Your task to perform on an android device: check storage Image 0: 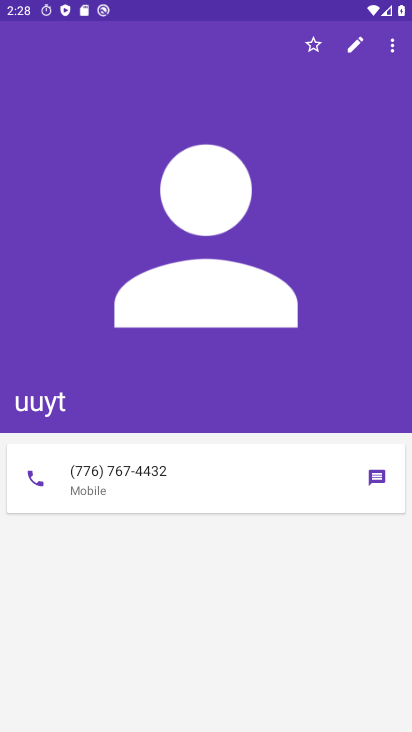
Step 0: press home button
Your task to perform on an android device: check storage Image 1: 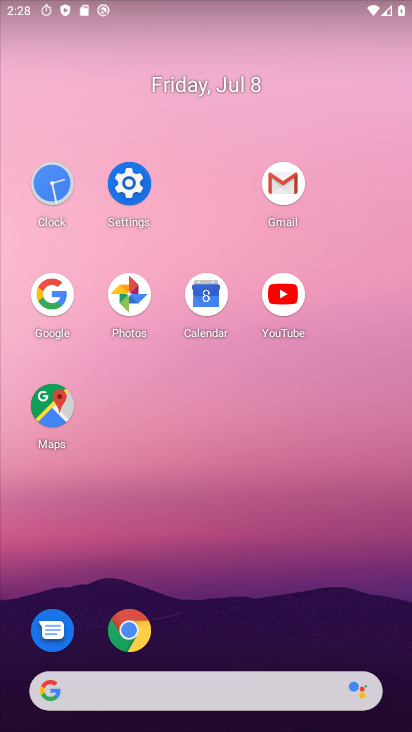
Step 1: click (128, 178)
Your task to perform on an android device: check storage Image 2: 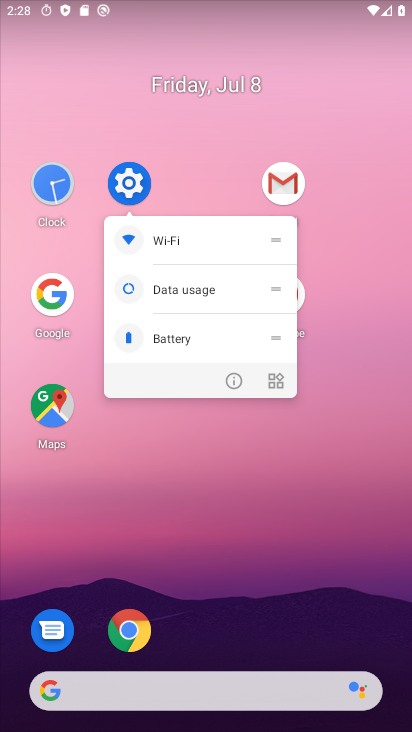
Step 2: click (128, 178)
Your task to perform on an android device: check storage Image 3: 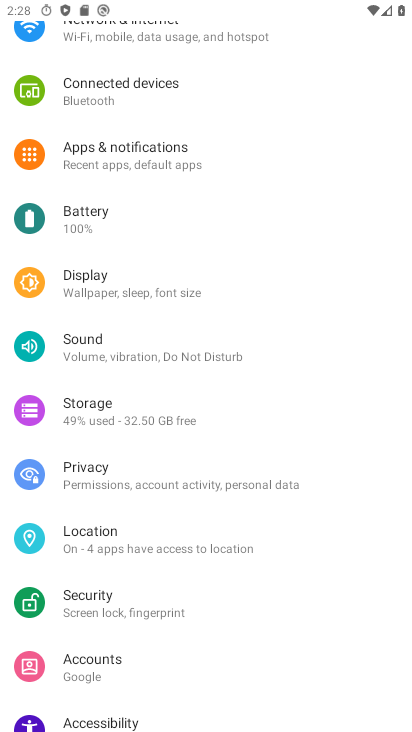
Step 3: click (72, 411)
Your task to perform on an android device: check storage Image 4: 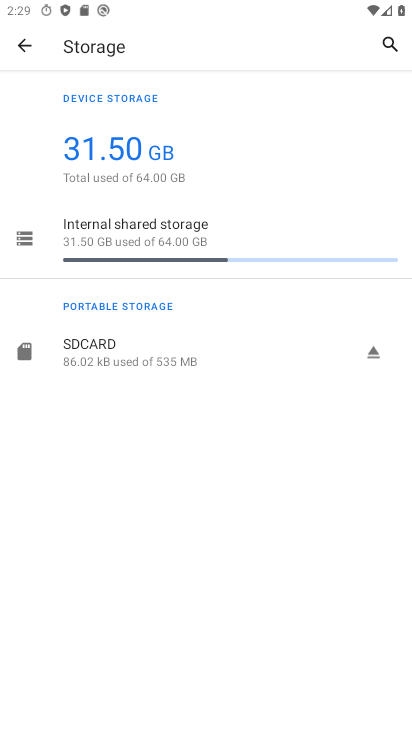
Step 4: task complete